Your task to perform on an android device: Search for sushi restaurants on Maps Image 0: 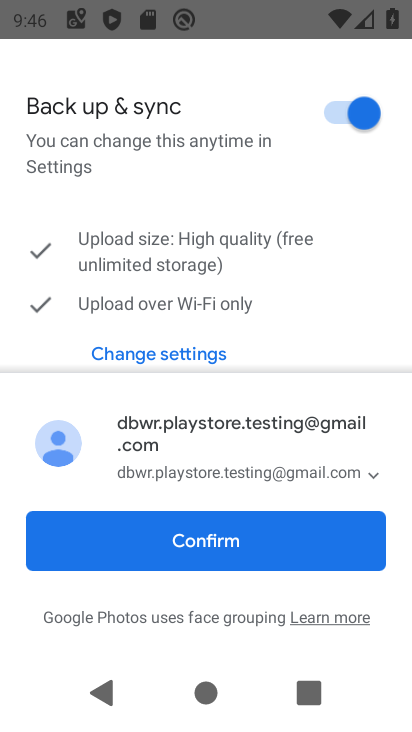
Step 0: press home button
Your task to perform on an android device: Search for sushi restaurants on Maps Image 1: 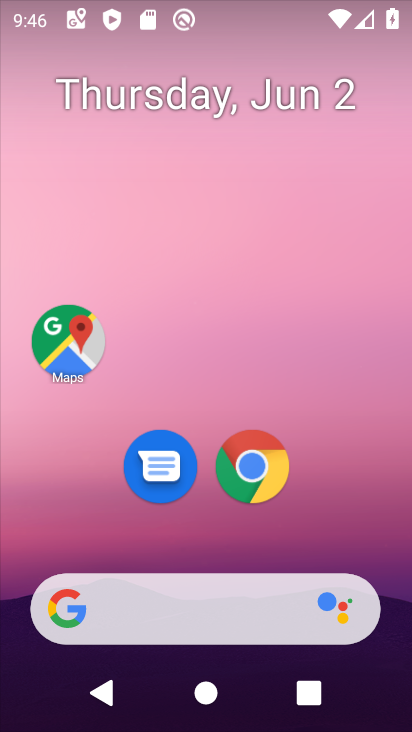
Step 1: click (51, 334)
Your task to perform on an android device: Search for sushi restaurants on Maps Image 2: 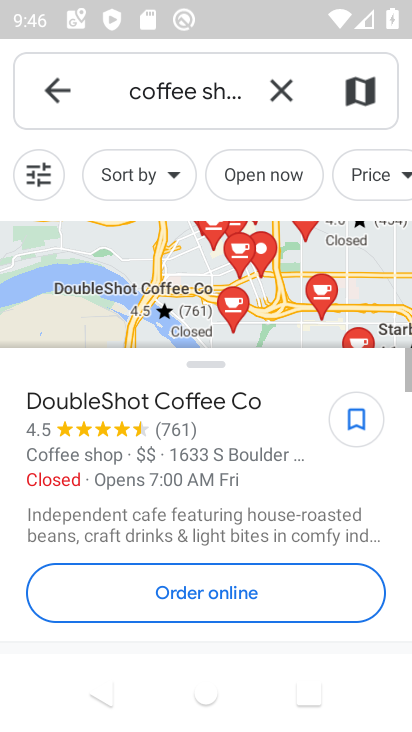
Step 2: click (288, 95)
Your task to perform on an android device: Search for sushi restaurants on Maps Image 3: 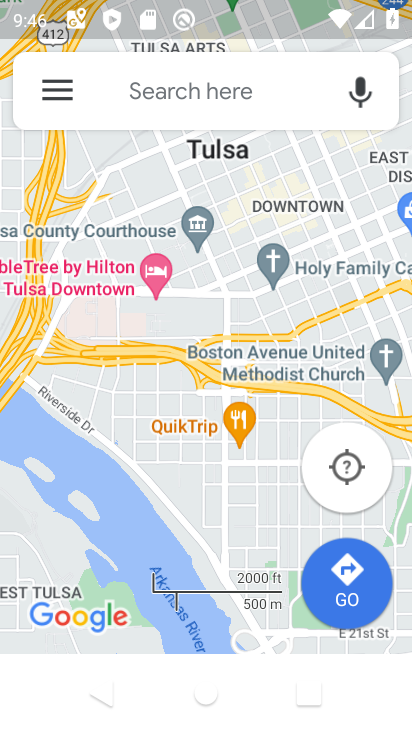
Step 3: click (131, 61)
Your task to perform on an android device: Search for sushi restaurants on Maps Image 4: 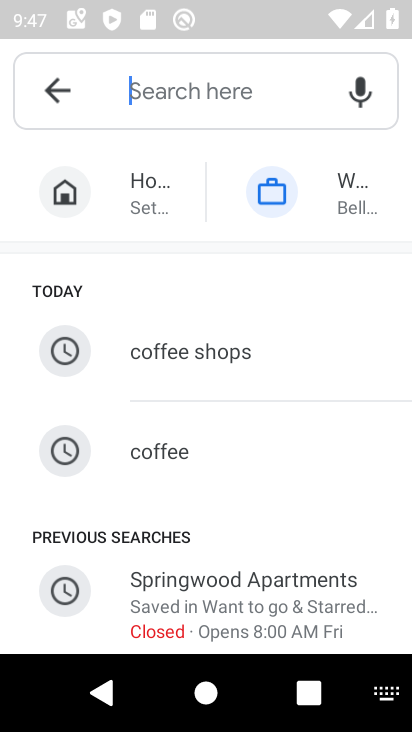
Step 4: type "sushi restaurants"
Your task to perform on an android device: Search for sushi restaurants on Maps Image 5: 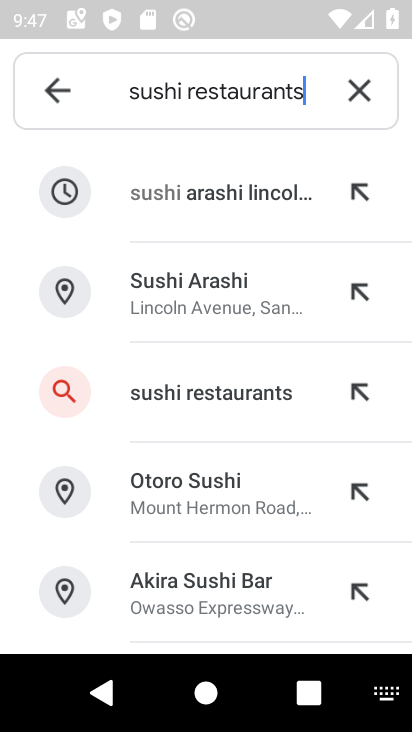
Step 5: click (191, 404)
Your task to perform on an android device: Search for sushi restaurants on Maps Image 6: 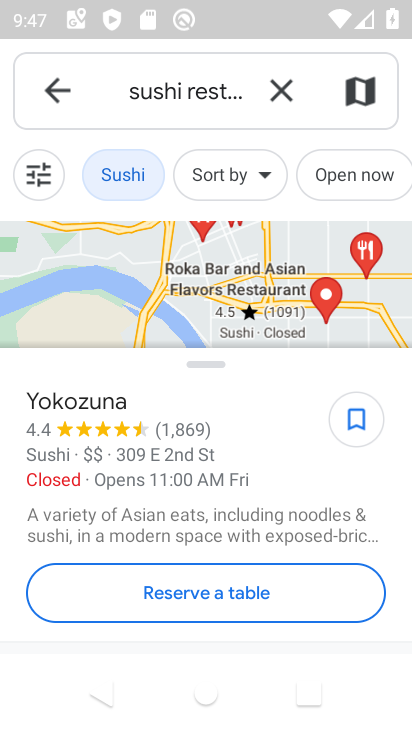
Step 6: task complete